Your task to perform on an android device: turn on improve location accuracy Image 0: 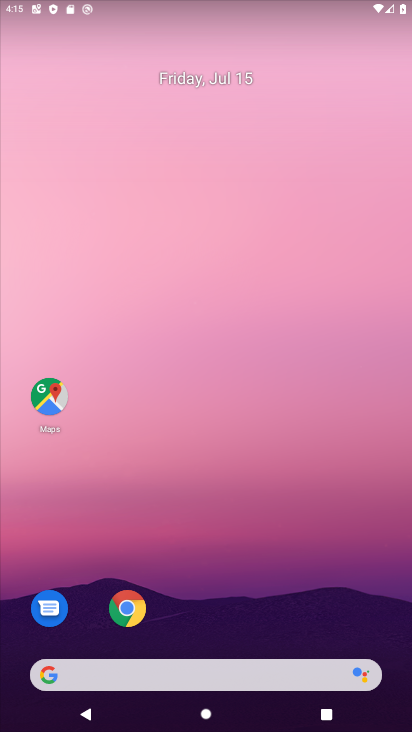
Step 0: drag from (240, 613) to (255, 105)
Your task to perform on an android device: turn on improve location accuracy Image 1: 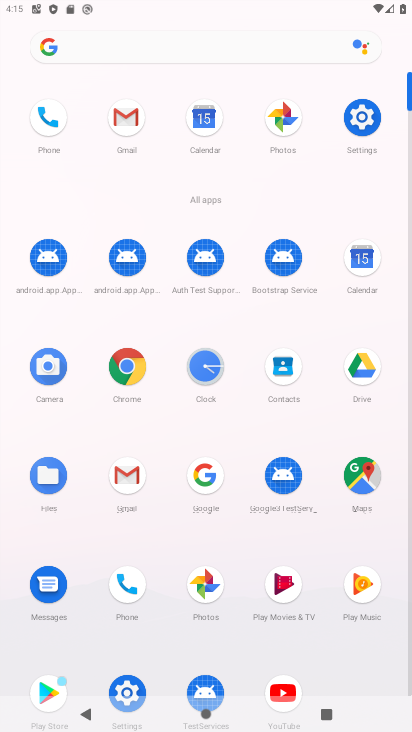
Step 1: click (130, 679)
Your task to perform on an android device: turn on improve location accuracy Image 2: 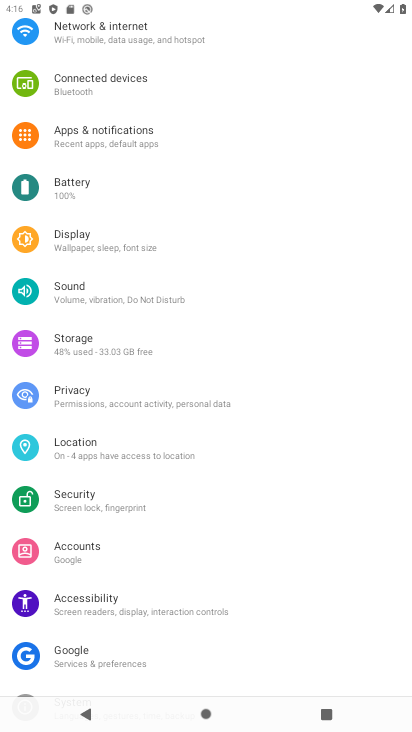
Step 2: click (94, 454)
Your task to perform on an android device: turn on improve location accuracy Image 3: 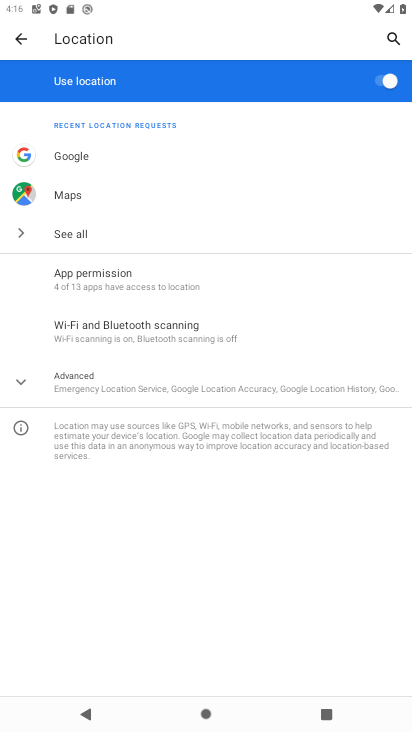
Step 3: click (125, 388)
Your task to perform on an android device: turn on improve location accuracy Image 4: 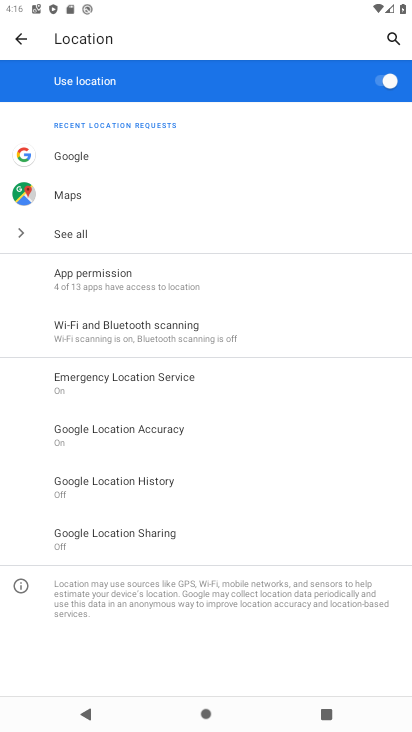
Step 4: click (102, 436)
Your task to perform on an android device: turn on improve location accuracy Image 5: 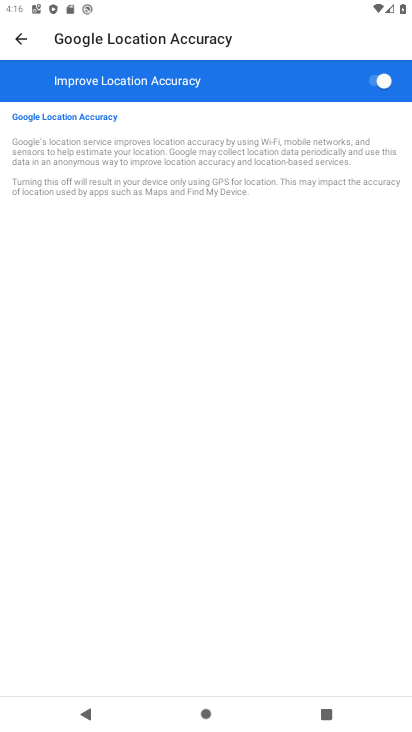
Step 5: task complete